Your task to perform on an android device: Open Yahoo.com Image 0: 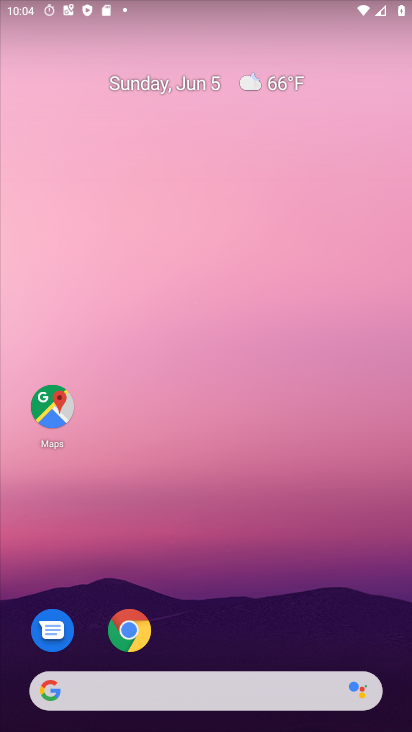
Step 0: click (125, 634)
Your task to perform on an android device: Open Yahoo.com Image 1: 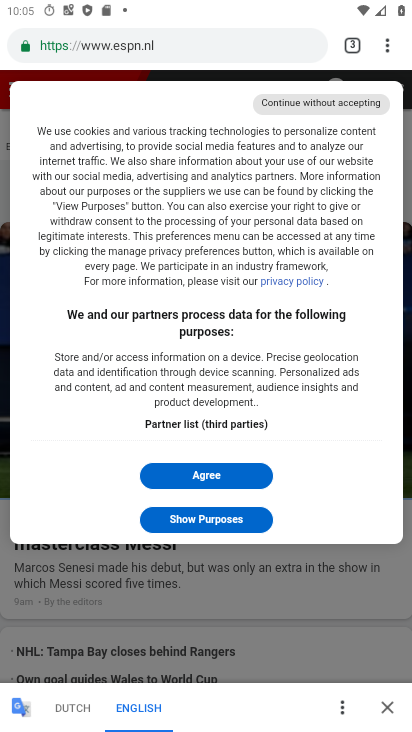
Step 1: click (388, 51)
Your task to perform on an android device: Open Yahoo.com Image 2: 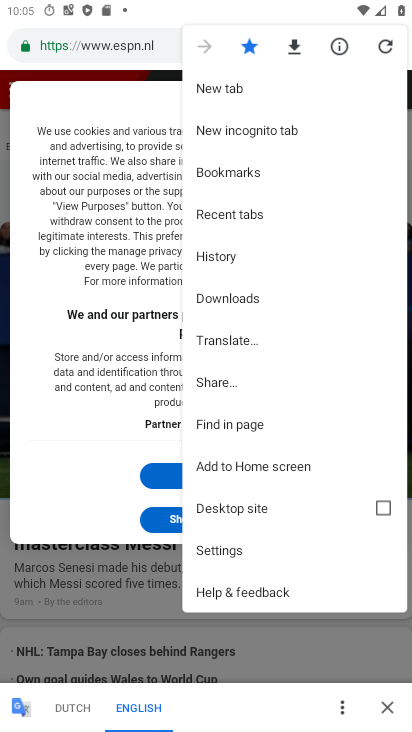
Step 2: click (216, 88)
Your task to perform on an android device: Open Yahoo.com Image 3: 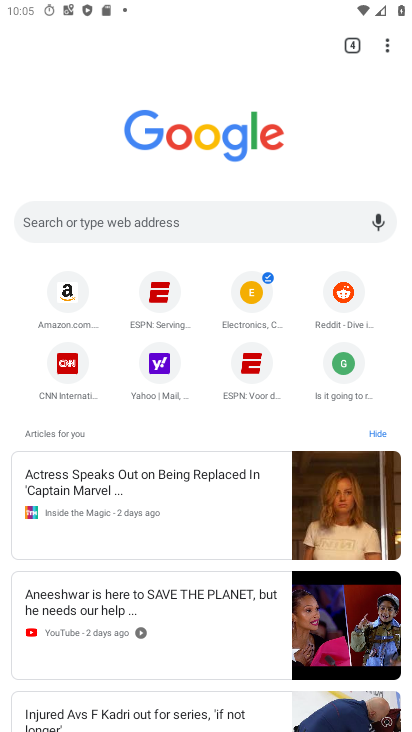
Step 3: click (159, 366)
Your task to perform on an android device: Open Yahoo.com Image 4: 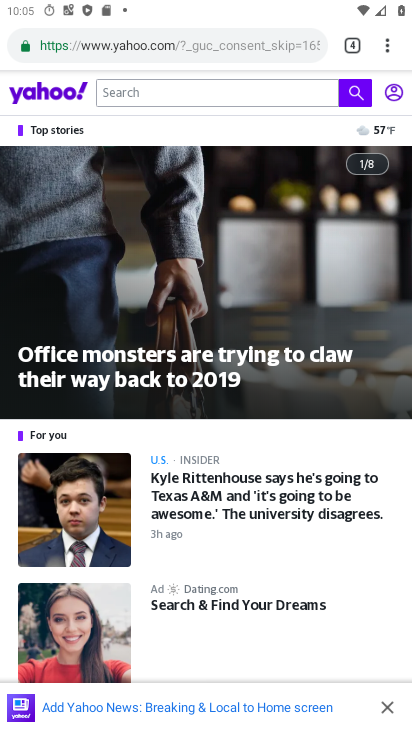
Step 4: task complete